Your task to perform on an android device: visit the assistant section in the google photos Image 0: 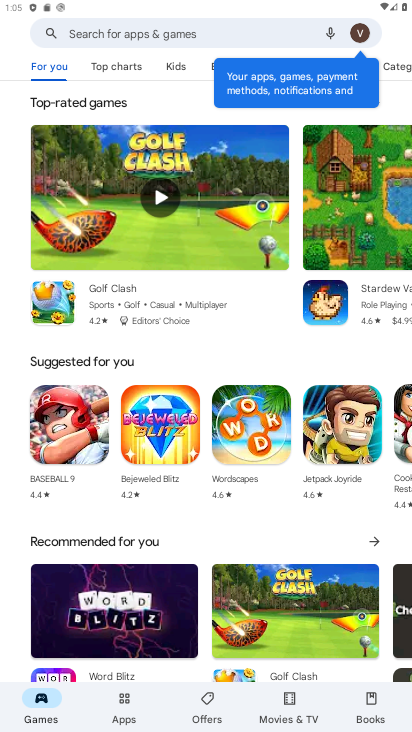
Step 0: press home button
Your task to perform on an android device: visit the assistant section in the google photos Image 1: 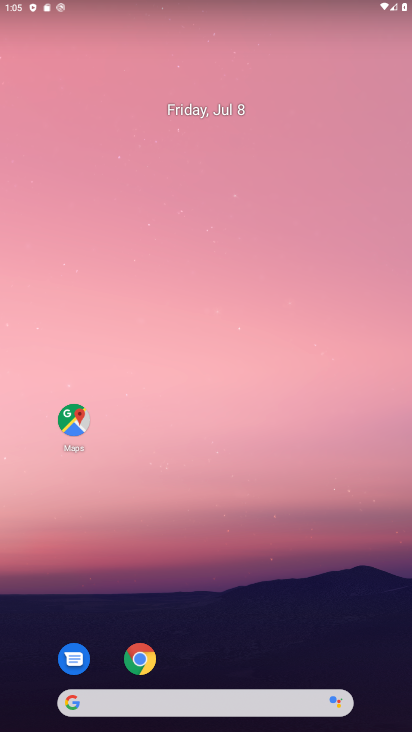
Step 1: drag from (263, 581) to (236, 121)
Your task to perform on an android device: visit the assistant section in the google photos Image 2: 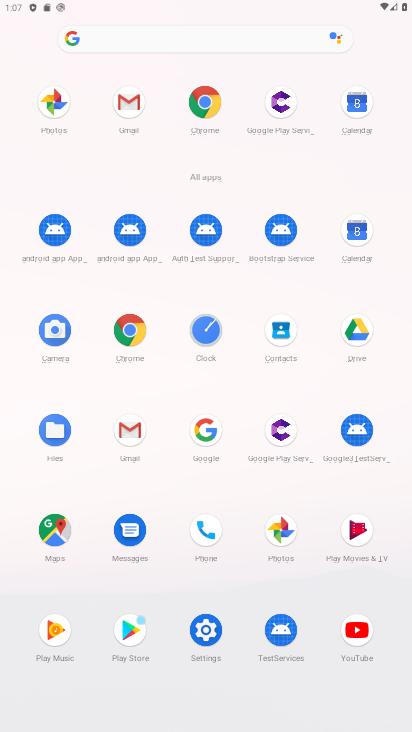
Step 2: click (273, 535)
Your task to perform on an android device: visit the assistant section in the google photos Image 3: 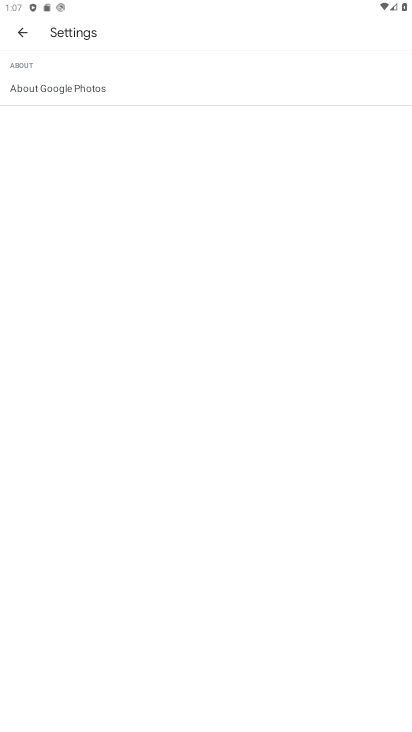
Step 3: press home button
Your task to perform on an android device: visit the assistant section in the google photos Image 4: 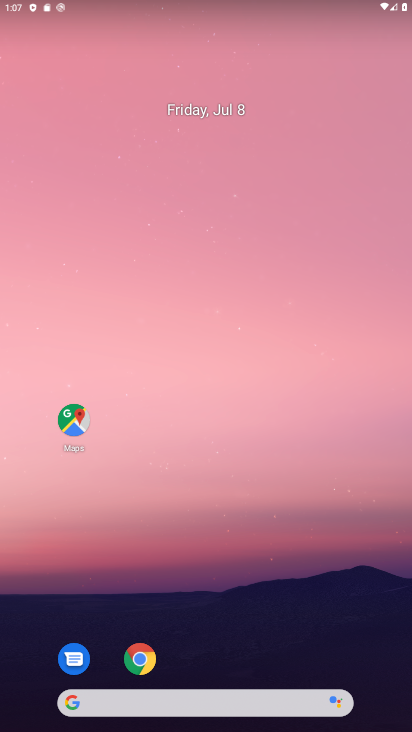
Step 4: drag from (288, 621) to (240, 58)
Your task to perform on an android device: visit the assistant section in the google photos Image 5: 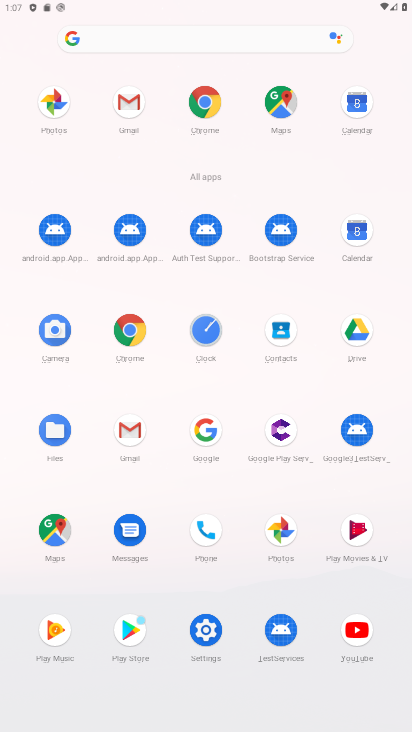
Step 5: click (292, 523)
Your task to perform on an android device: visit the assistant section in the google photos Image 6: 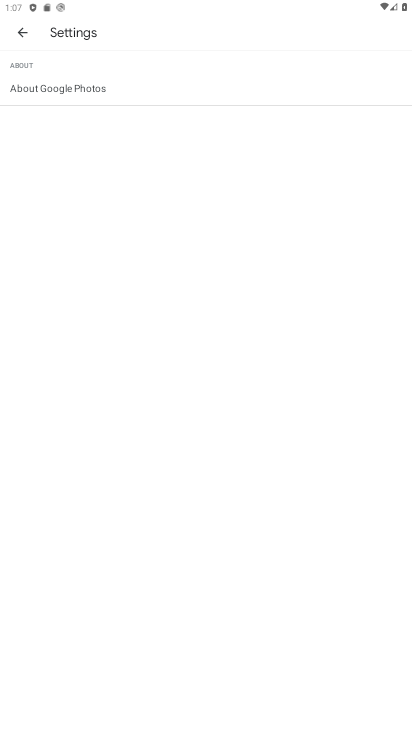
Step 6: click (26, 37)
Your task to perform on an android device: visit the assistant section in the google photos Image 7: 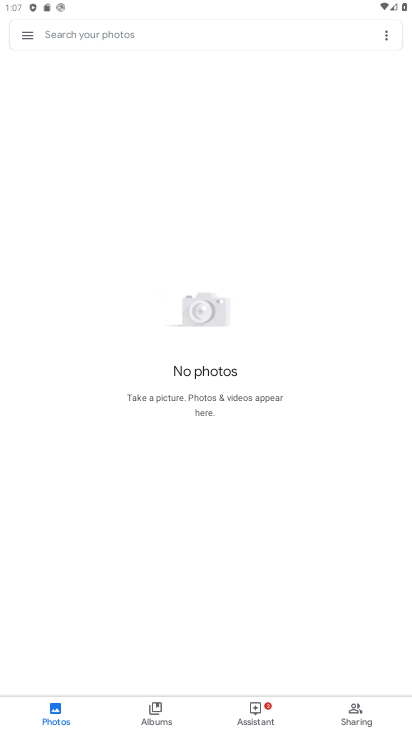
Step 7: click (212, 33)
Your task to perform on an android device: visit the assistant section in the google photos Image 8: 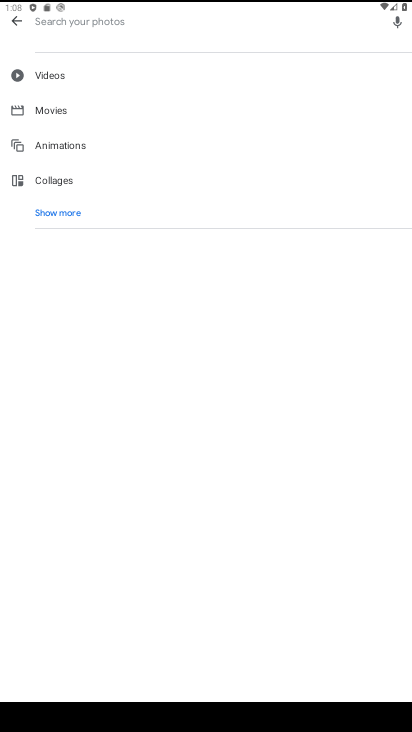
Step 8: click (18, 17)
Your task to perform on an android device: visit the assistant section in the google photos Image 9: 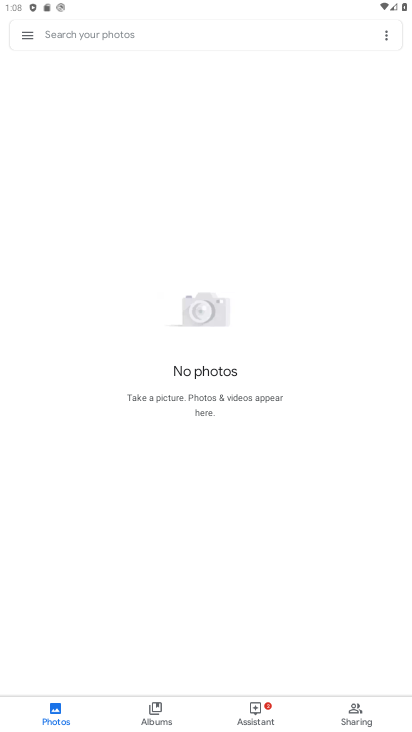
Step 9: click (261, 707)
Your task to perform on an android device: visit the assistant section in the google photos Image 10: 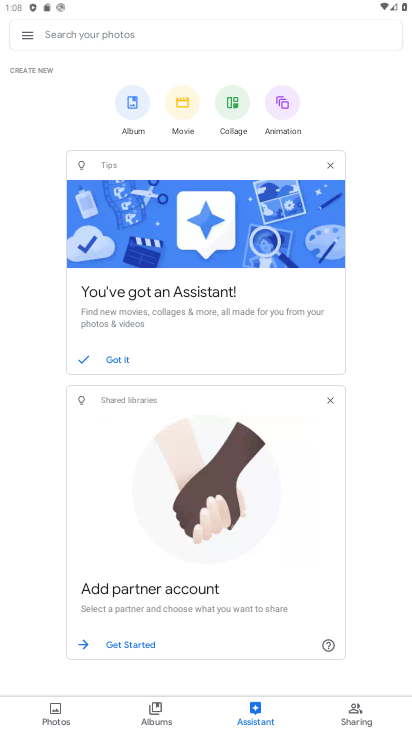
Step 10: task complete